Your task to perform on an android device: turn on showing notifications on the lock screen Image 0: 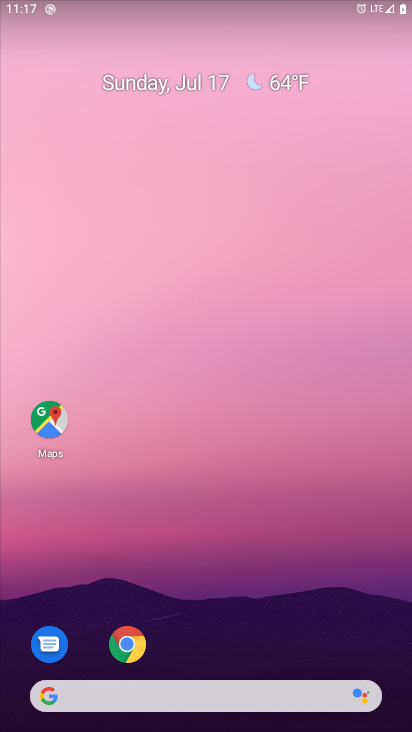
Step 0: press home button
Your task to perform on an android device: turn on showing notifications on the lock screen Image 1: 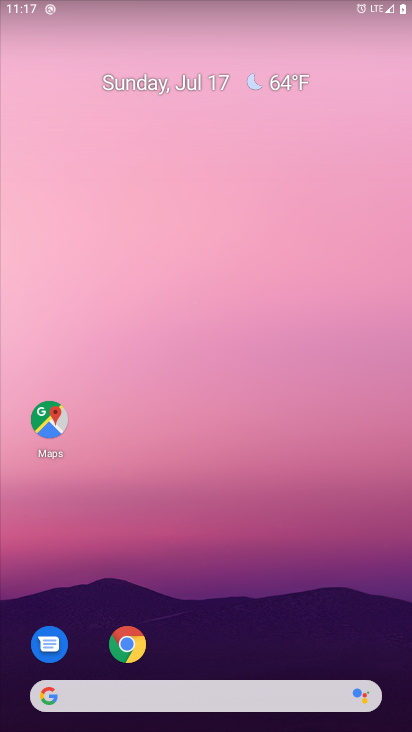
Step 1: drag from (274, 622) to (218, 8)
Your task to perform on an android device: turn on showing notifications on the lock screen Image 2: 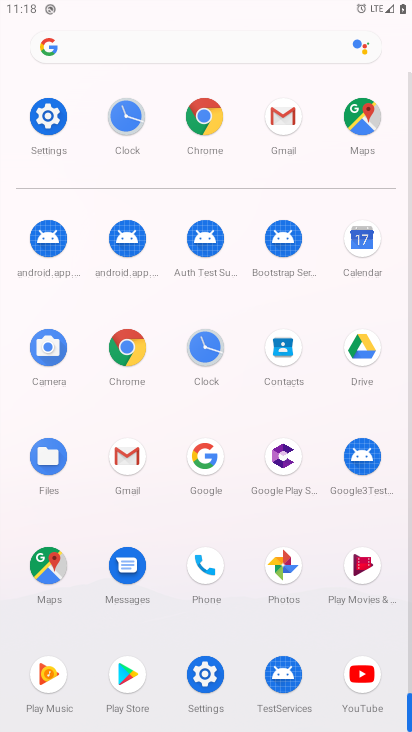
Step 2: click (51, 112)
Your task to perform on an android device: turn on showing notifications on the lock screen Image 3: 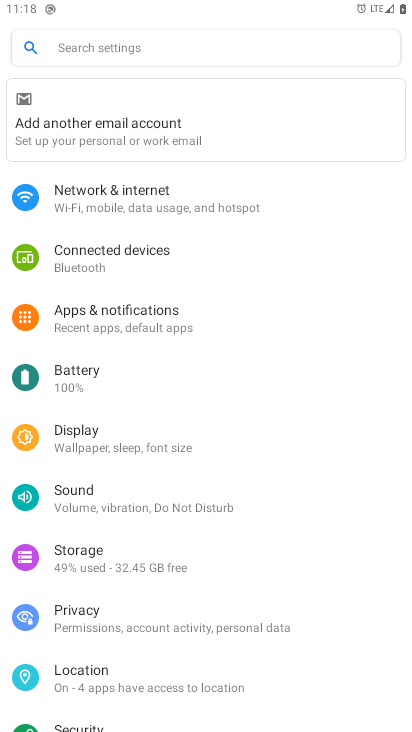
Step 3: click (114, 316)
Your task to perform on an android device: turn on showing notifications on the lock screen Image 4: 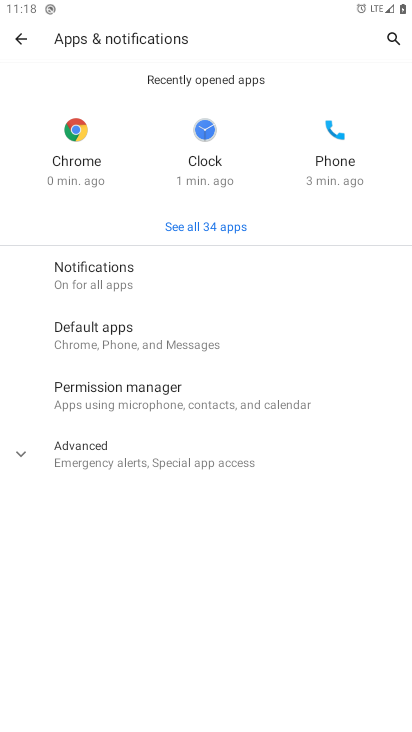
Step 4: click (49, 270)
Your task to perform on an android device: turn on showing notifications on the lock screen Image 5: 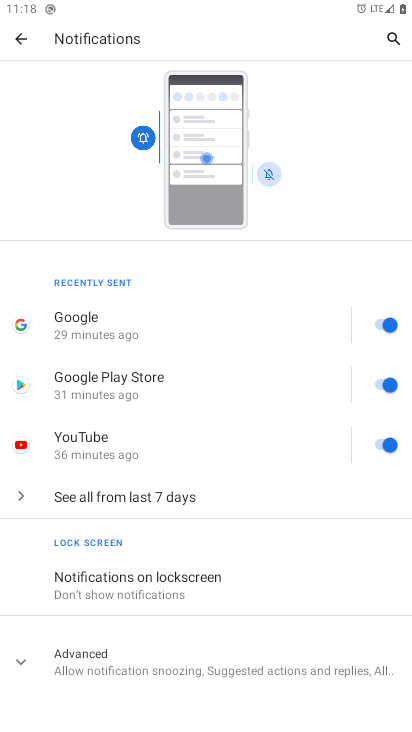
Step 5: click (109, 595)
Your task to perform on an android device: turn on showing notifications on the lock screen Image 6: 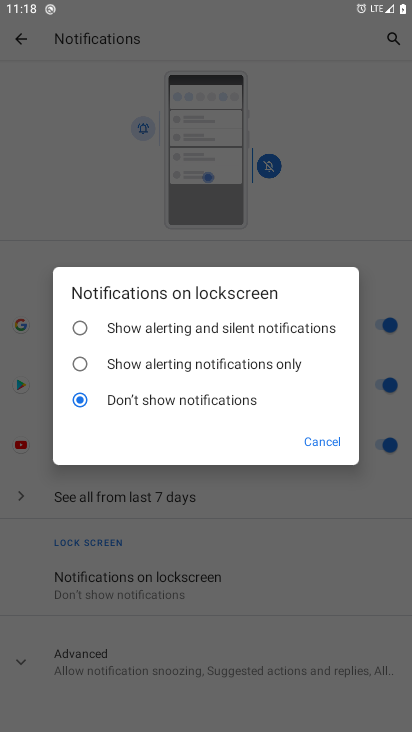
Step 6: click (73, 326)
Your task to perform on an android device: turn on showing notifications on the lock screen Image 7: 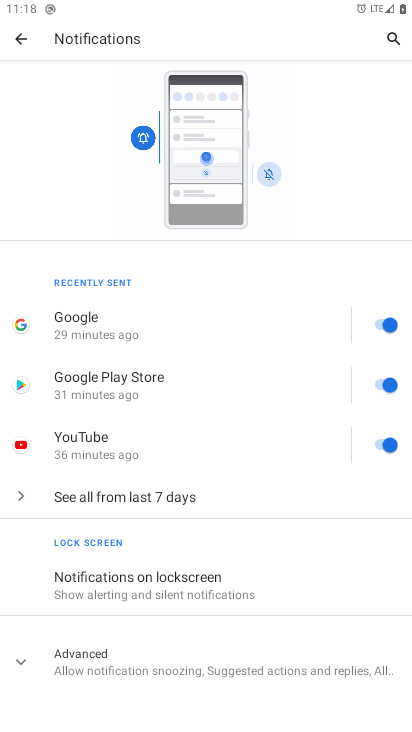
Step 7: task complete